Your task to perform on an android device: turn off picture-in-picture Image 0: 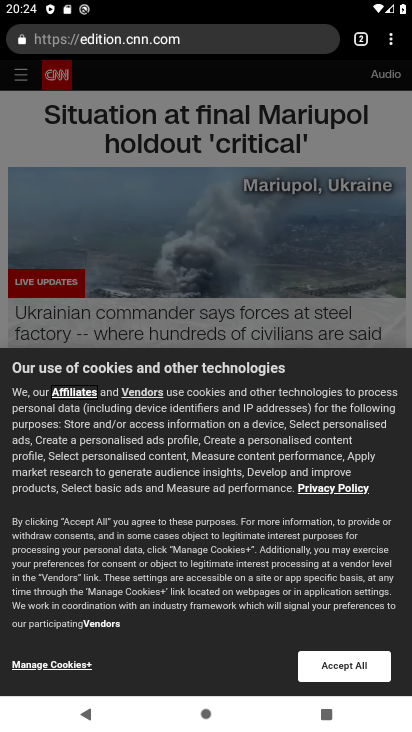
Step 0: press home button
Your task to perform on an android device: turn off picture-in-picture Image 1: 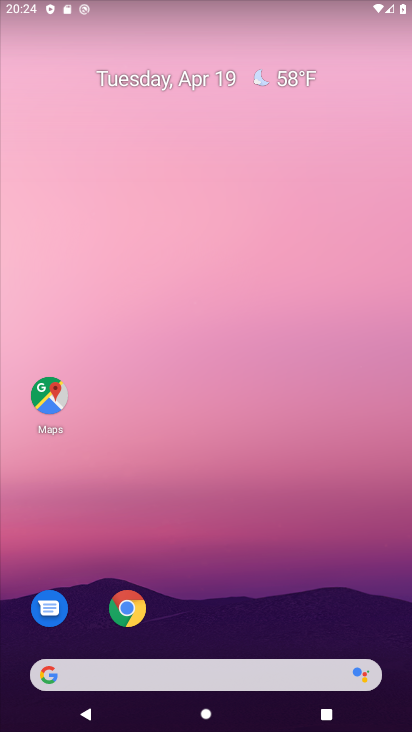
Step 1: click (126, 609)
Your task to perform on an android device: turn off picture-in-picture Image 2: 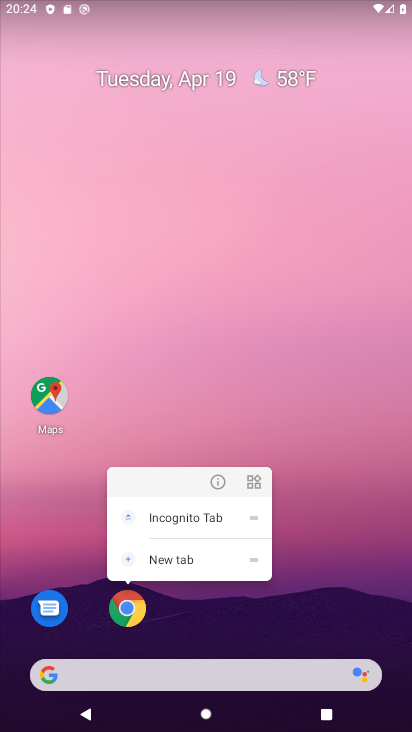
Step 2: click (215, 486)
Your task to perform on an android device: turn off picture-in-picture Image 3: 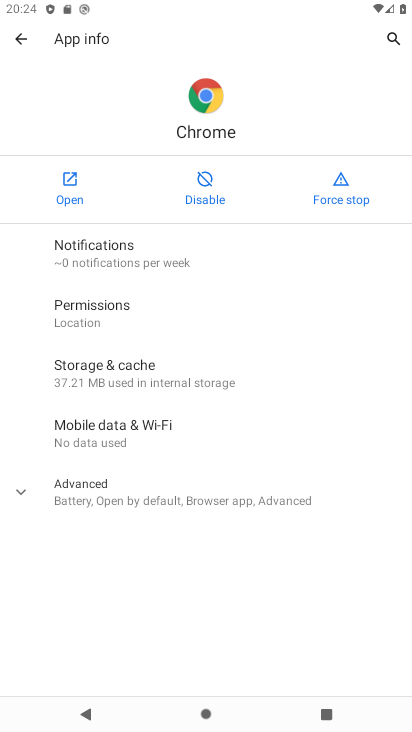
Step 3: click (180, 498)
Your task to perform on an android device: turn off picture-in-picture Image 4: 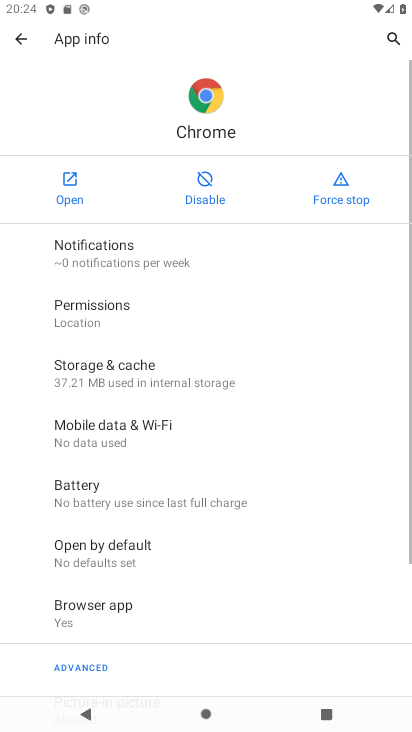
Step 4: drag from (182, 590) to (270, 419)
Your task to perform on an android device: turn off picture-in-picture Image 5: 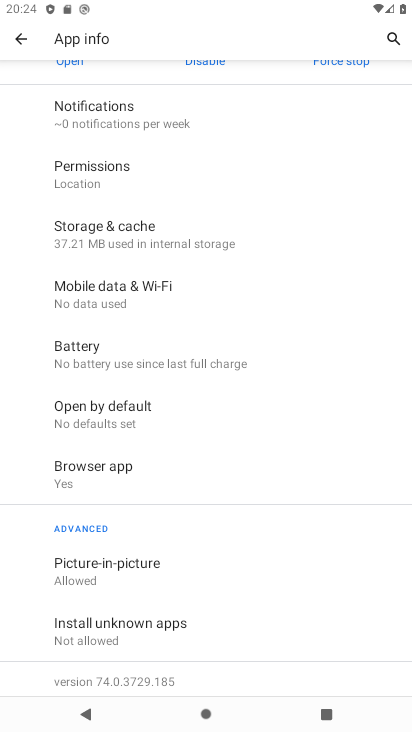
Step 5: click (147, 562)
Your task to perform on an android device: turn off picture-in-picture Image 6: 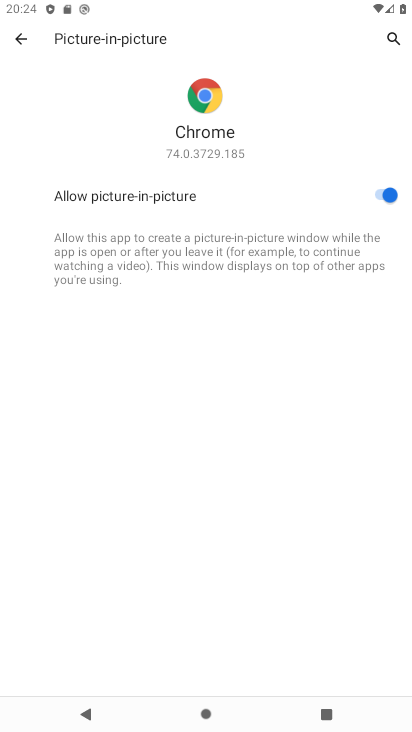
Step 6: click (391, 194)
Your task to perform on an android device: turn off picture-in-picture Image 7: 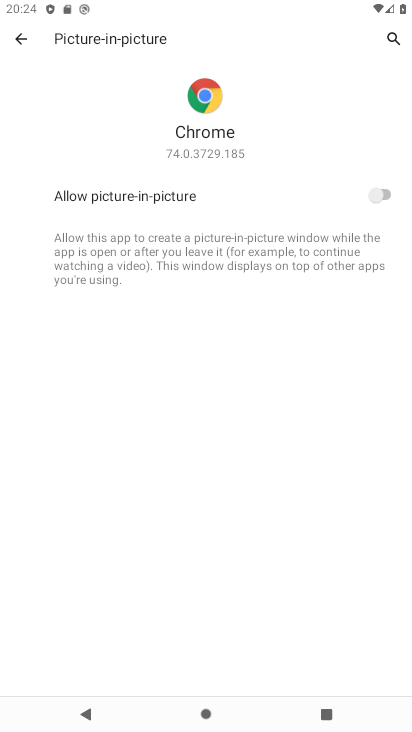
Step 7: task complete